Your task to perform on an android device: turn notification dots on Image 0: 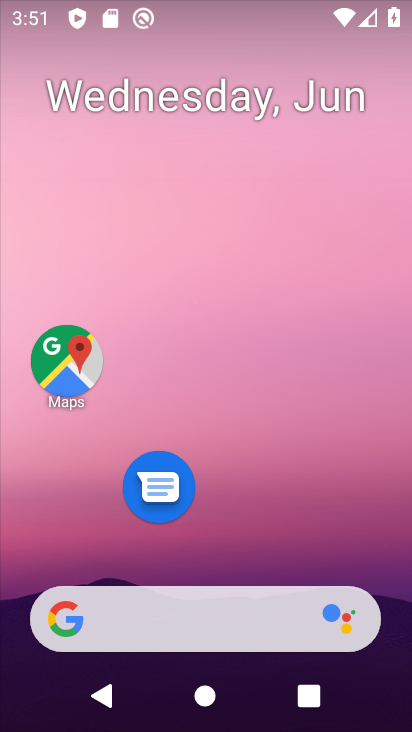
Step 0: drag from (201, 540) to (281, 0)
Your task to perform on an android device: turn notification dots on Image 1: 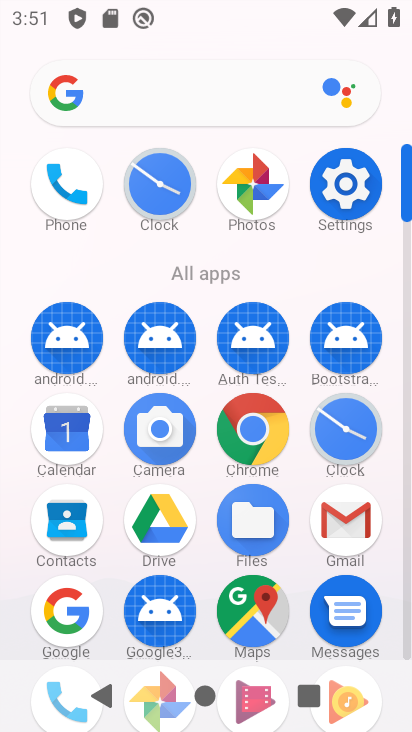
Step 1: click (358, 212)
Your task to perform on an android device: turn notification dots on Image 2: 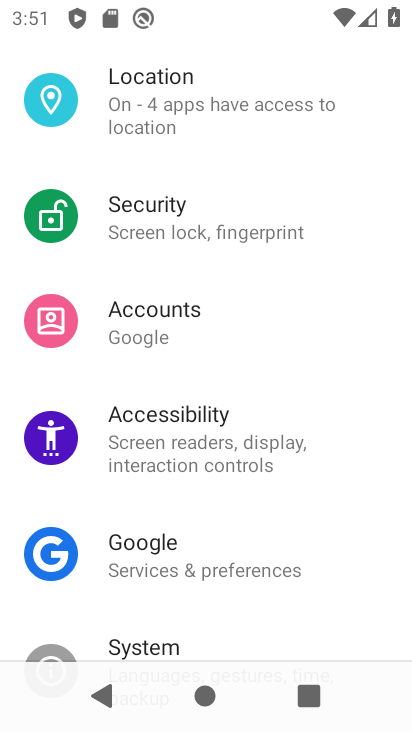
Step 2: drag from (151, 220) to (172, 443)
Your task to perform on an android device: turn notification dots on Image 3: 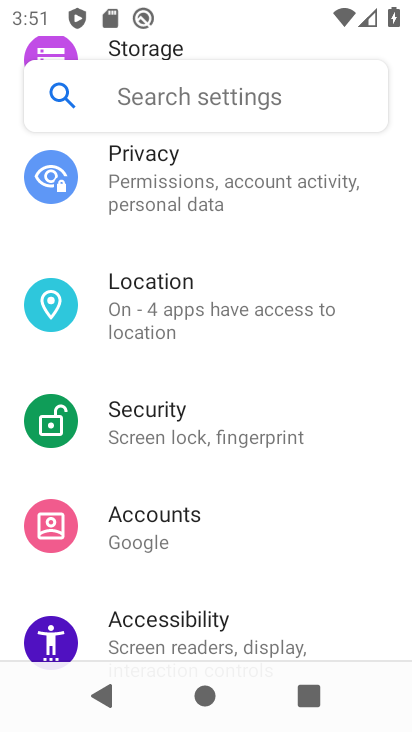
Step 3: drag from (245, 224) to (245, 475)
Your task to perform on an android device: turn notification dots on Image 4: 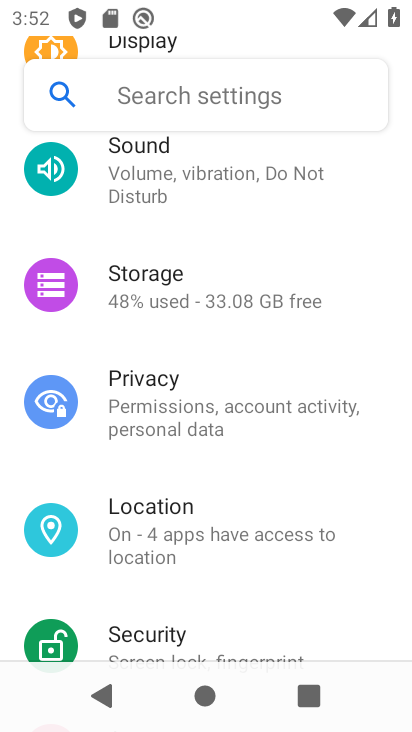
Step 4: drag from (209, 230) to (245, 663)
Your task to perform on an android device: turn notification dots on Image 5: 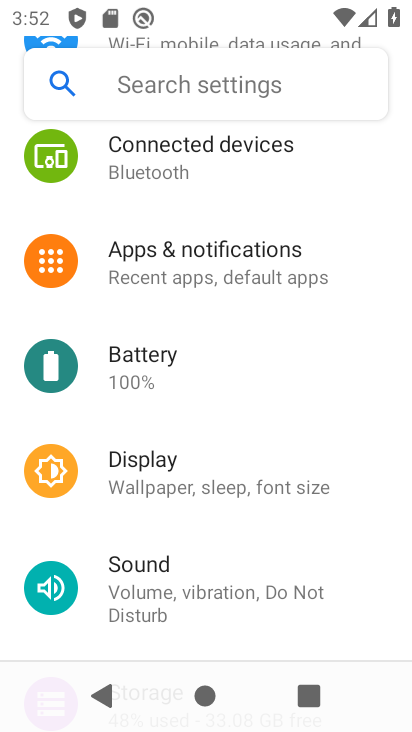
Step 5: click (208, 265)
Your task to perform on an android device: turn notification dots on Image 6: 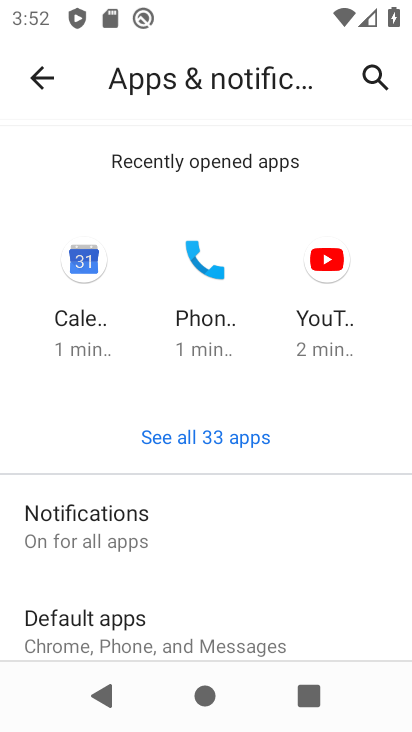
Step 6: click (134, 544)
Your task to perform on an android device: turn notification dots on Image 7: 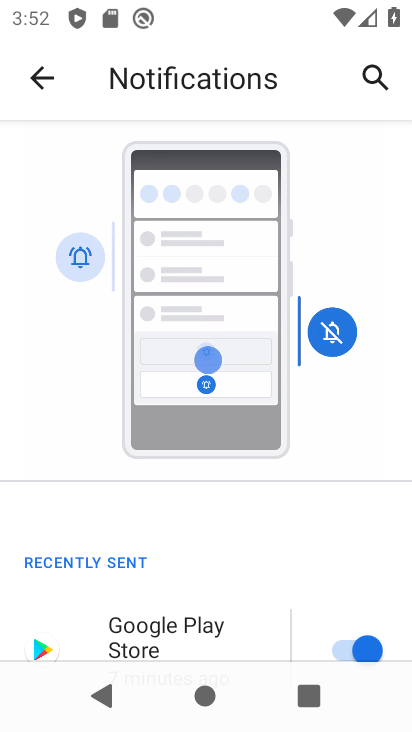
Step 7: drag from (203, 601) to (231, 209)
Your task to perform on an android device: turn notification dots on Image 8: 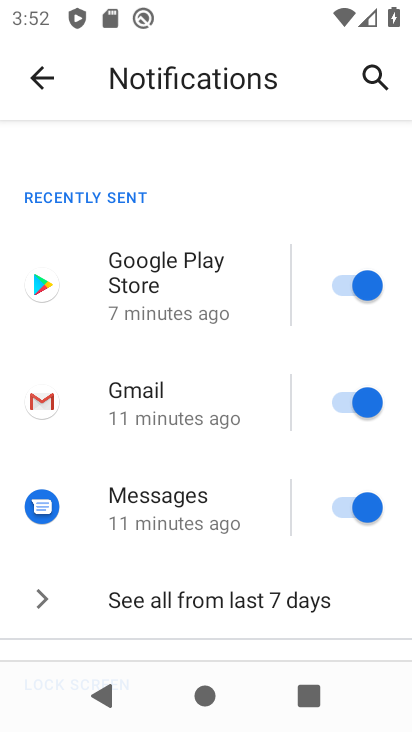
Step 8: drag from (175, 571) to (184, 352)
Your task to perform on an android device: turn notification dots on Image 9: 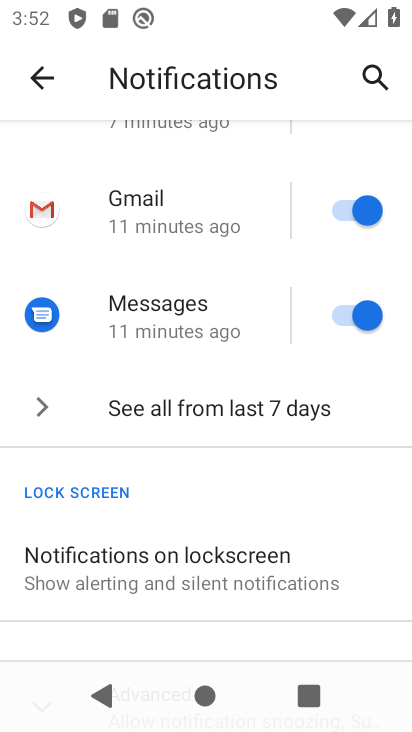
Step 9: drag from (140, 634) to (234, 131)
Your task to perform on an android device: turn notification dots on Image 10: 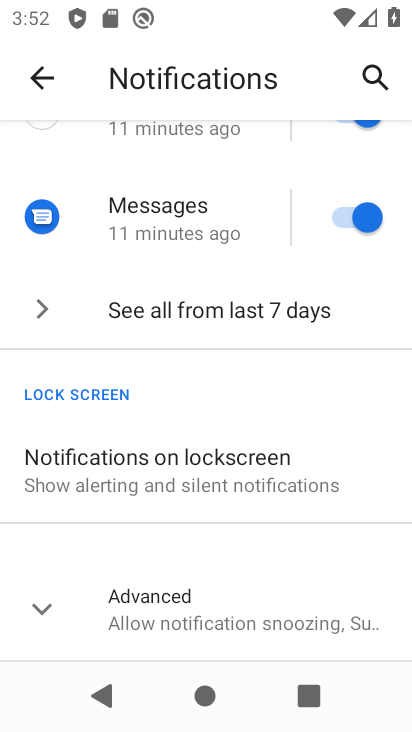
Step 10: click (180, 612)
Your task to perform on an android device: turn notification dots on Image 11: 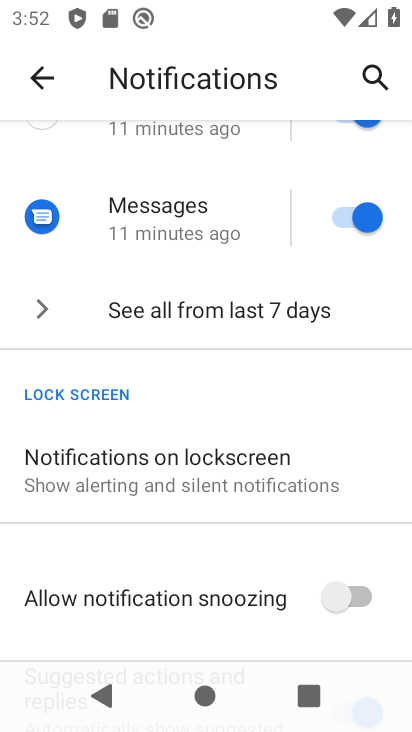
Step 11: task complete